Your task to perform on an android device: Open the web browser Image 0: 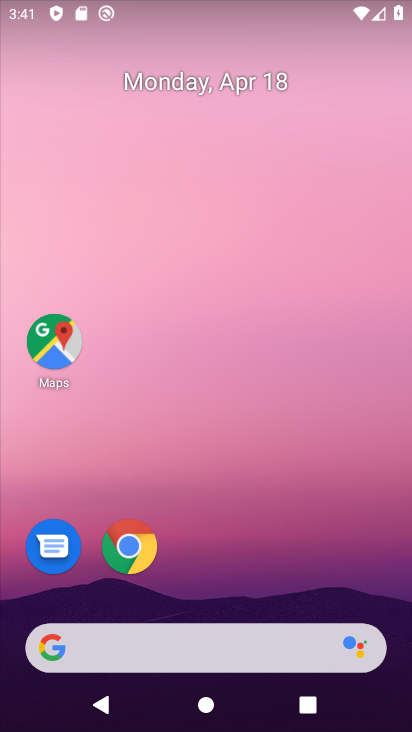
Step 0: click (120, 546)
Your task to perform on an android device: Open the web browser Image 1: 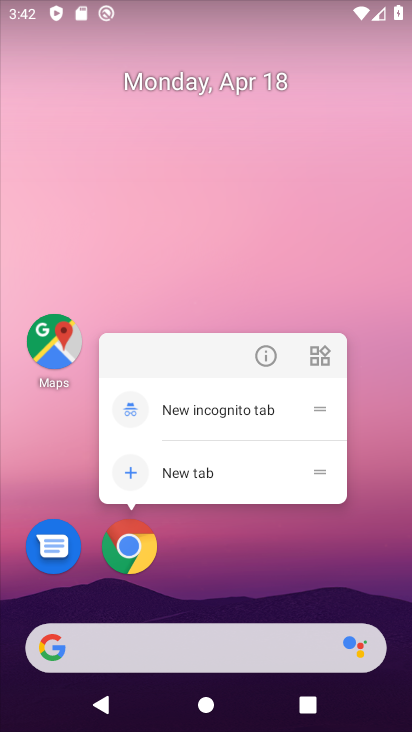
Step 1: drag from (283, 578) to (292, 0)
Your task to perform on an android device: Open the web browser Image 2: 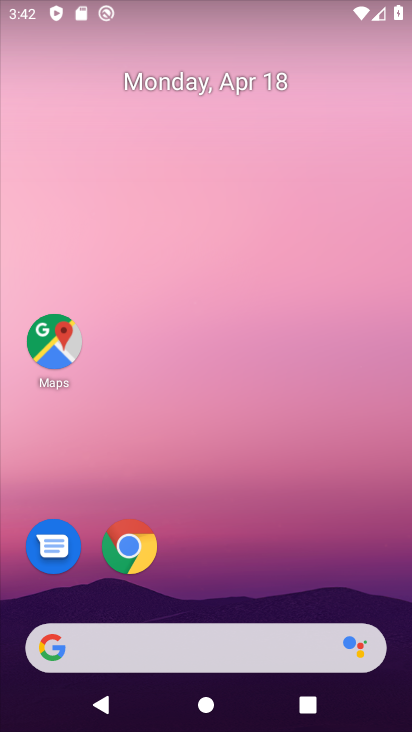
Step 2: drag from (244, 578) to (291, 120)
Your task to perform on an android device: Open the web browser Image 3: 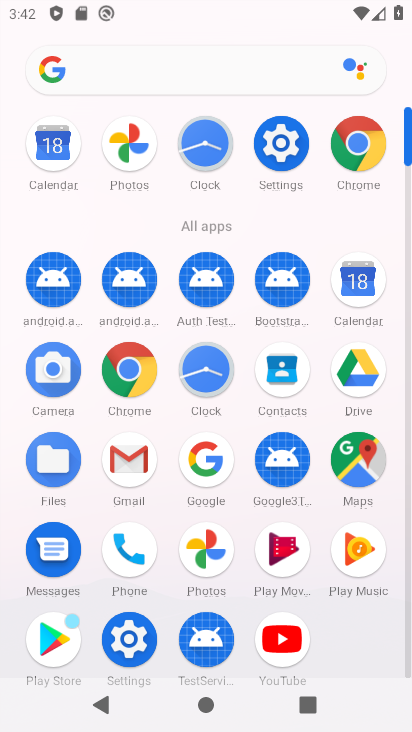
Step 3: click (128, 369)
Your task to perform on an android device: Open the web browser Image 4: 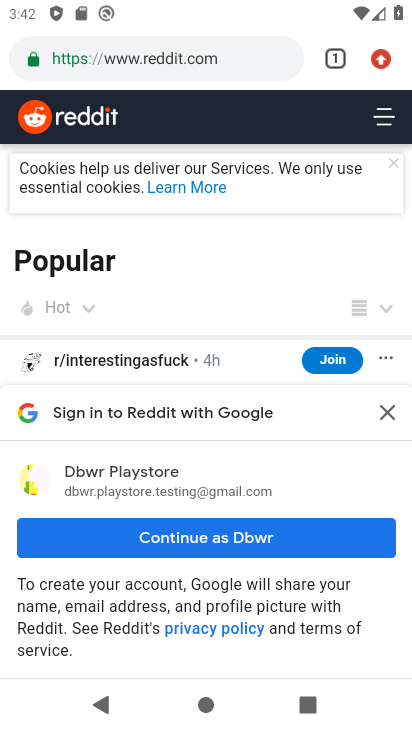
Step 4: task complete